Your task to perform on an android device: Go to Wikipedia Image 0: 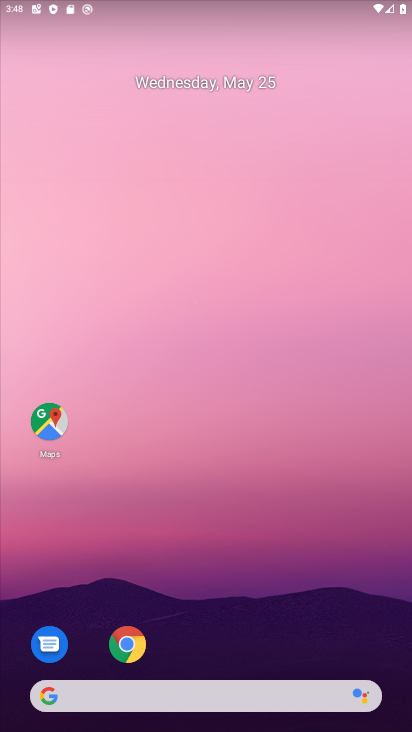
Step 0: click (124, 651)
Your task to perform on an android device: Go to Wikipedia Image 1: 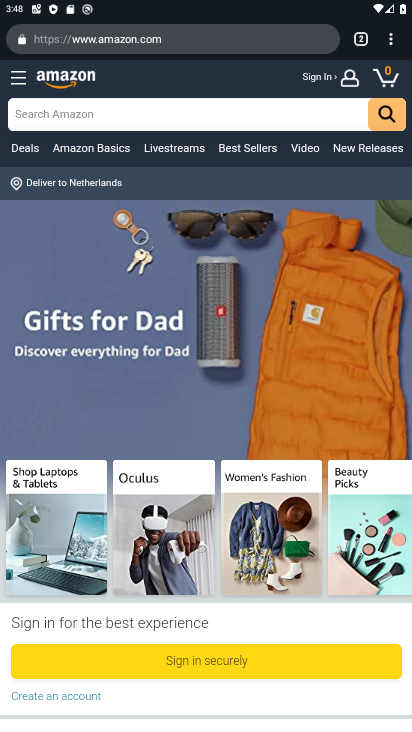
Step 1: click (108, 44)
Your task to perform on an android device: Go to Wikipedia Image 2: 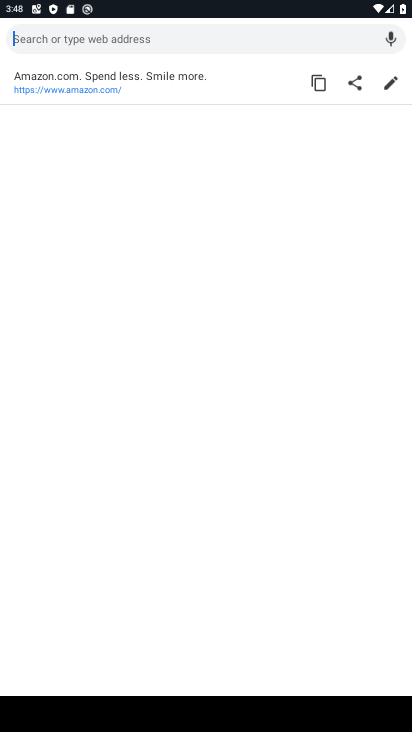
Step 2: type "wikipedia"
Your task to perform on an android device: Go to Wikipedia Image 3: 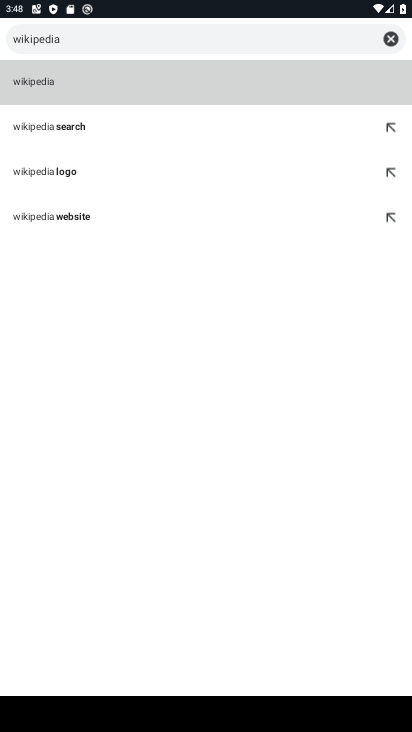
Step 3: click (41, 84)
Your task to perform on an android device: Go to Wikipedia Image 4: 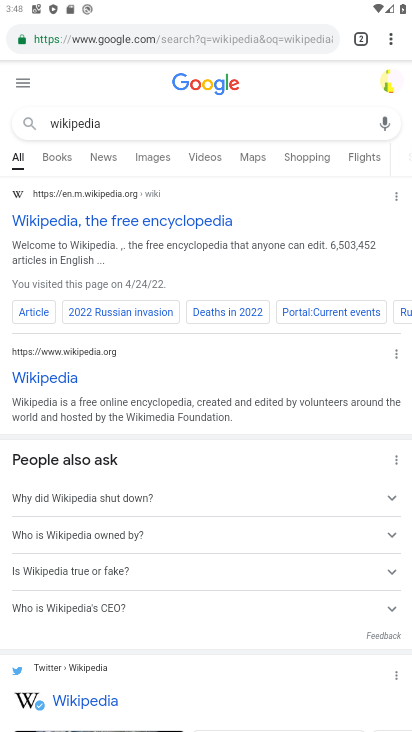
Step 4: click (37, 373)
Your task to perform on an android device: Go to Wikipedia Image 5: 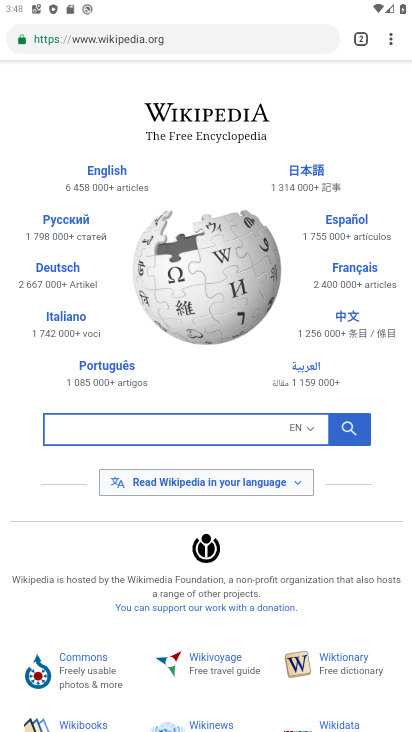
Step 5: task complete